Your task to perform on an android device: turn off location Image 0: 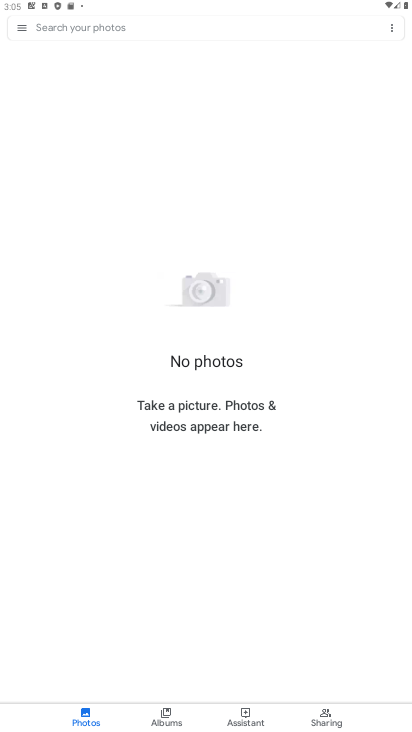
Step 0: press home button
Your task to perform on an android device: turn off location Image 1: 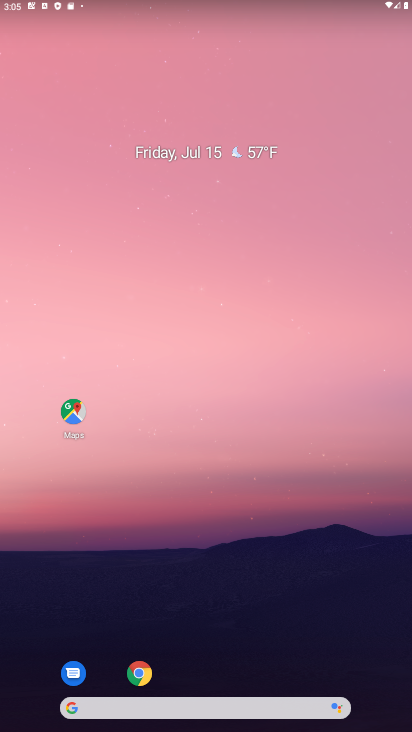
Step 1: drag from (378, 670) to (361, 124)
Your task to perform on an android device: turn off location Image 2: 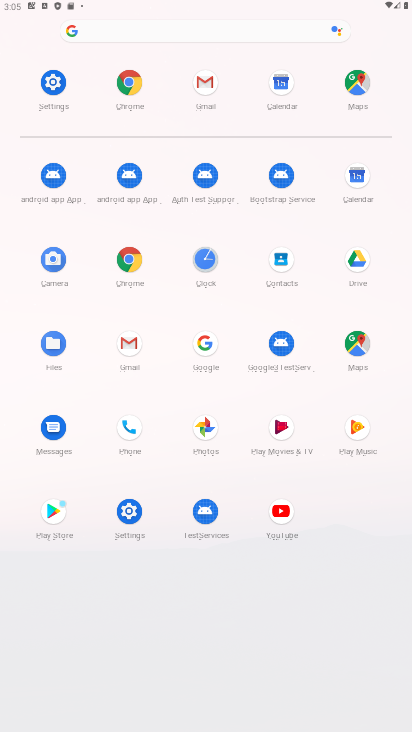
Step 2: click (130, 511)
Your task to perform on an android device: turn off location Image 3: 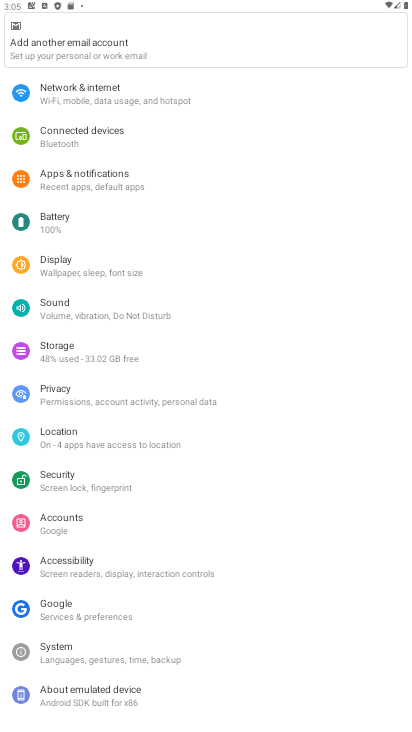
Step 3: click (56, 430)
Your task to perform on an android device: turn off location Image 4: 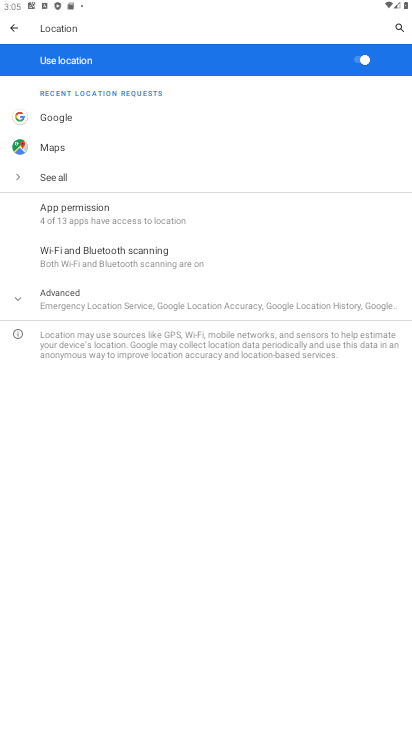
Step 4: click (354, 63)
Your task to perform on an android device: turn off location Image 5: 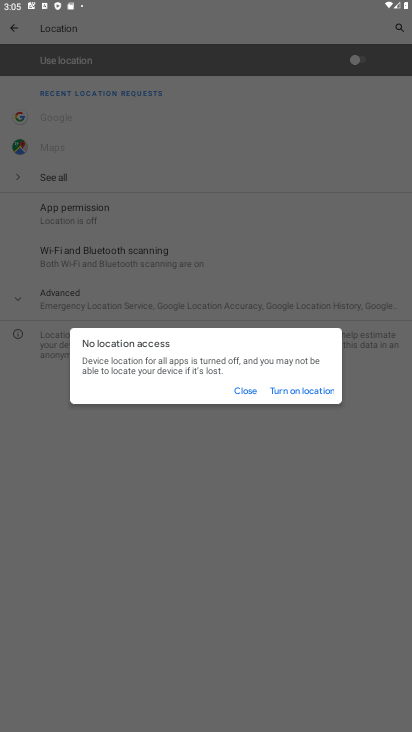
Step 5: click (247, 391)
Your task to perform on an android device: turn off location Image 6: 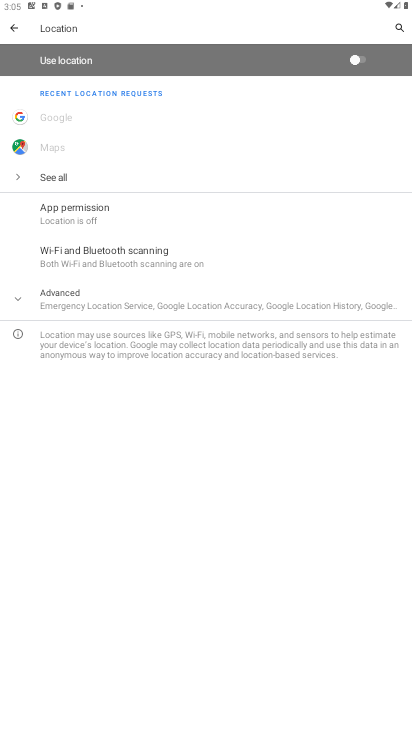
Step 6: task complete